Your task to perform on an android device: Go to calendar. Show me events next week Image 0: 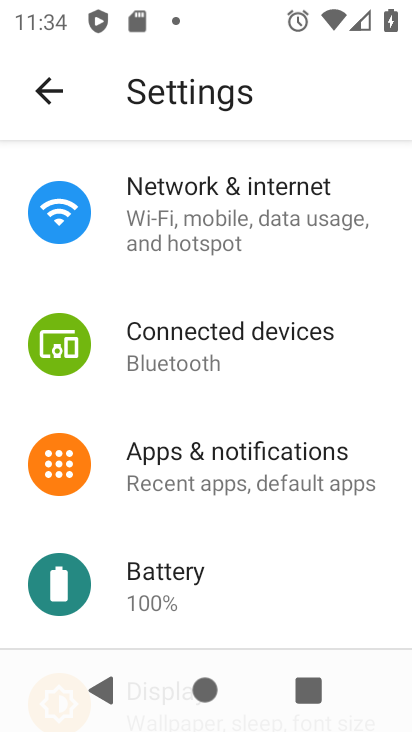
Step 0: press home button
Your task to perform on an android device: Go to calendar. Show me events next week Image 1: 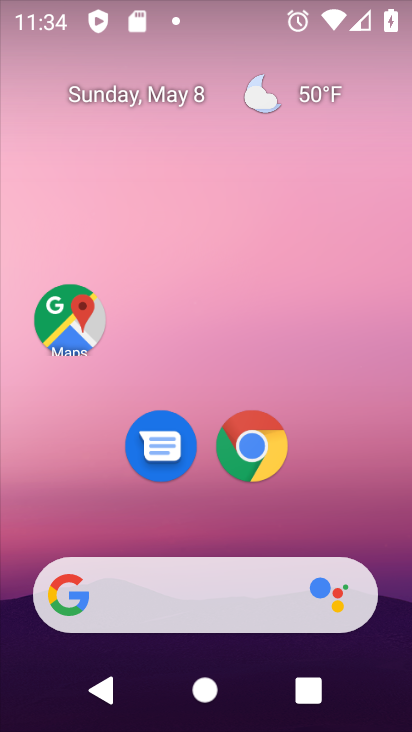
Step 1: drag from (350, 508) to (303, 1)
Your task to perform on an android device: Go to calendar. Show me events next week Image 2: 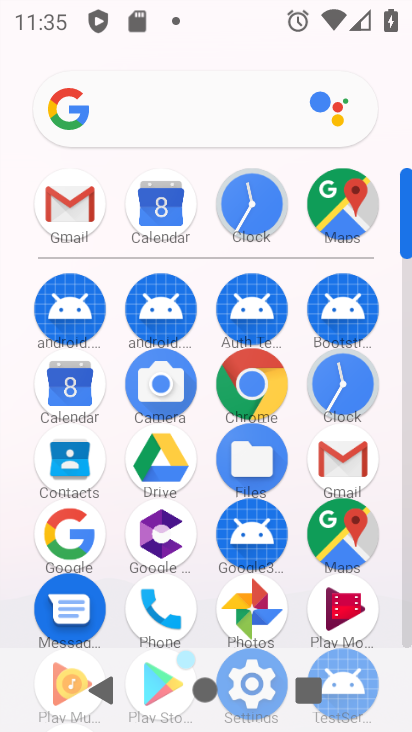
Step 2: click (55, 396)
Your task to perform on an android device: Go to calendar. Show me events next week Image 3: 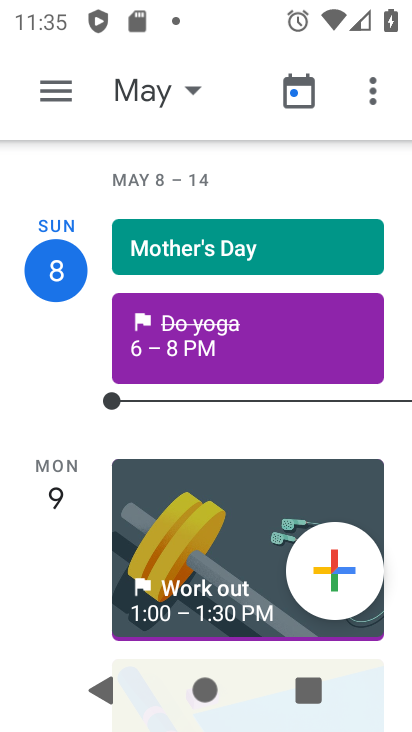
Step 3: click (161, 95)
Your task to perform on an android device: Go to calendar. Show me events next week Image 4: 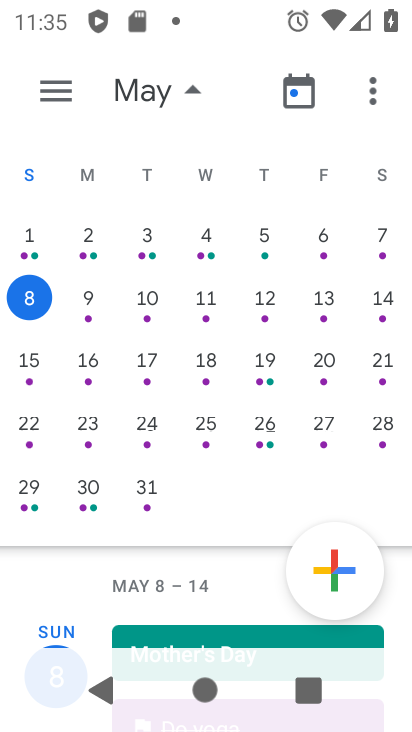
Step 4: click (24, 368)
Your task to perform on an android device: Go to calendar. Show me events next week Image 5: 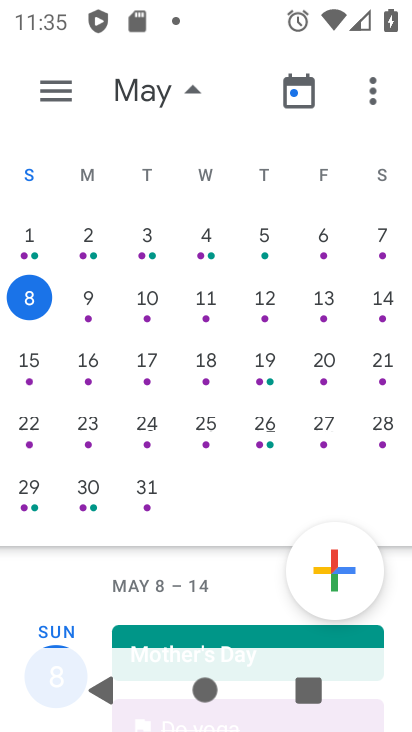
Step 5: click (44, 362)
Your task to perform on an android device: Go to calendar. Show me events next week Image 6: 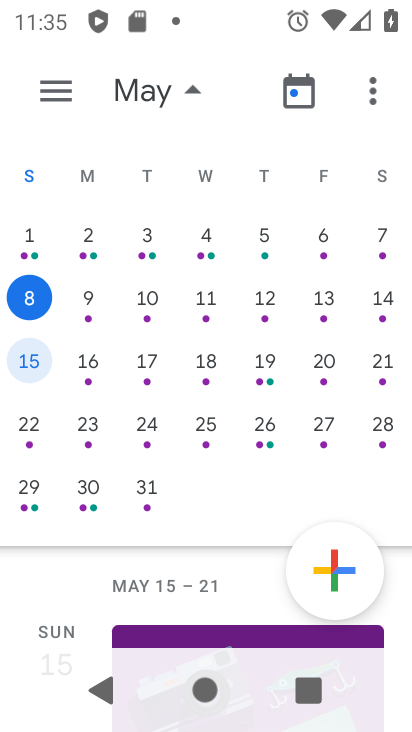
Step 6: click (88, 380)
Your task to perform on an android device: Go to calendar. Show me events next week Image 7: 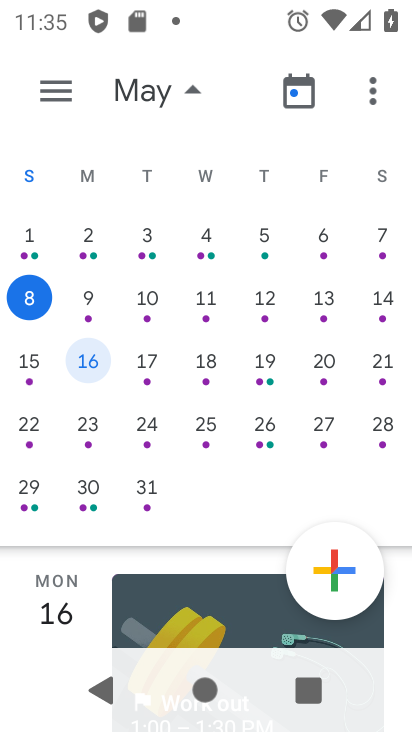
Step 7: click (152, 373)
Your task to perform on an android device: Go to calendar. Show me events next week Image 8: 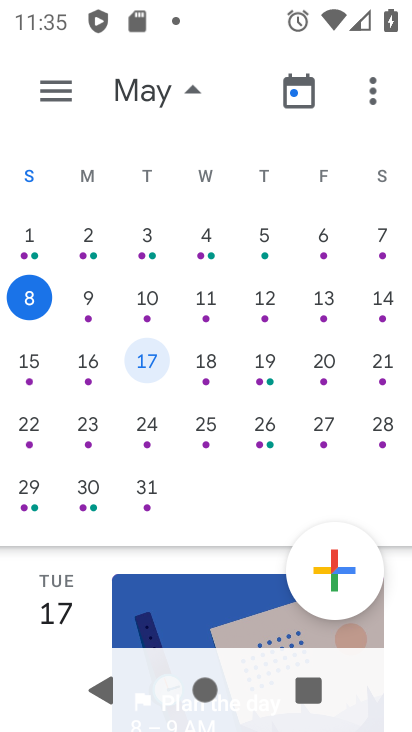
Step 8: click (212, 366)
Your task to perform on an android device: Go to calendar. Show me events next week Image 9: 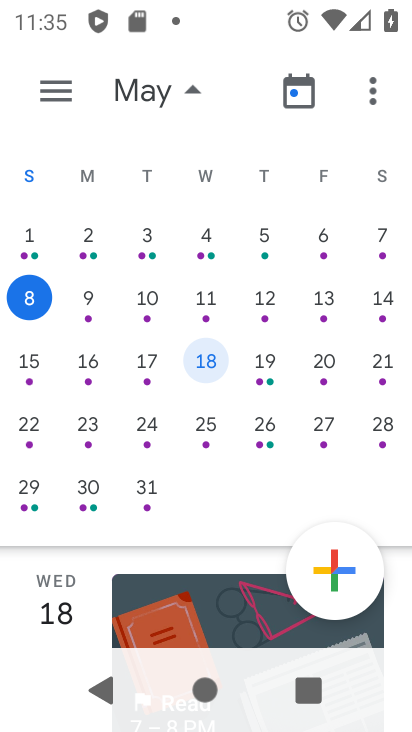
Step 9: click (267, 373)
Your task to perform on an android device: Go to calendar. Show me events next week Image 10: 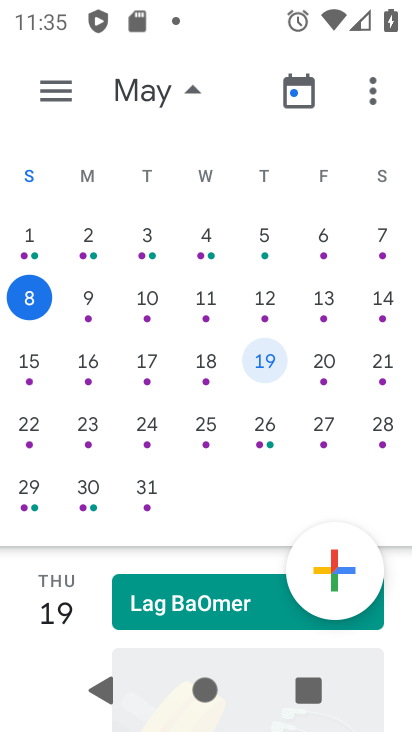
Step 10: click (331, 370)
Your task to perform on an android device: Go to calendar. Show me events next week Image 11: 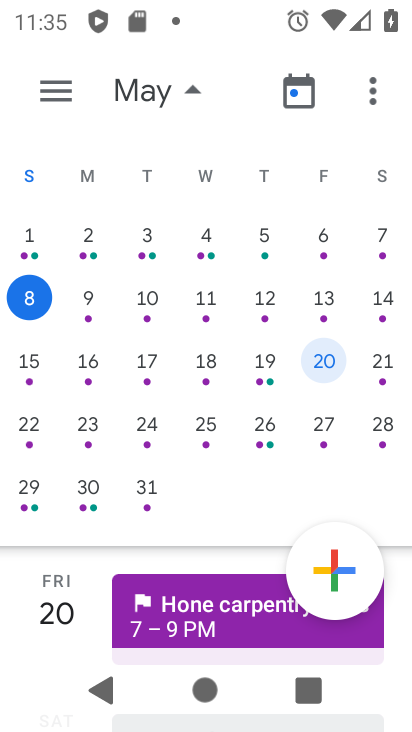
Step 11: click (380, 371)
Your task to perform on an android device: Go to calendar. Show me events next week Image 12: 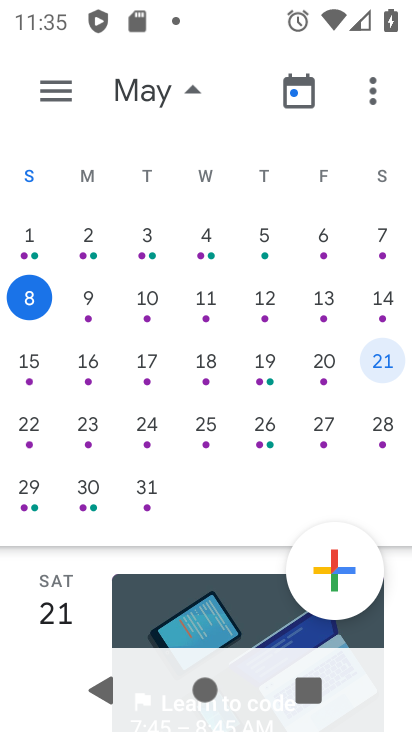
Step 12: task complete